Your task to perform on an android device: Open calendar and show me the fourth week of next month Image 0: 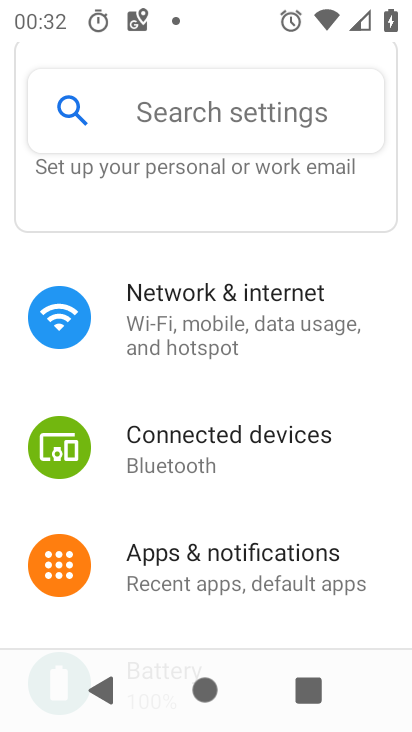
Step 0: press home button
Your task to perform on an android device: Open calendar and show me the fourth week of next month Image 1: 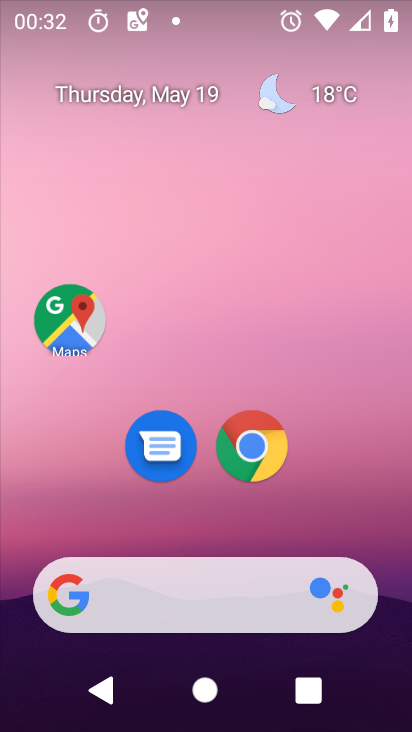
Step 1: drag from (212, 594) to (277, 193)
Your task to perform on an android device: Open calendar and show me the fourth week of next month Image 2: 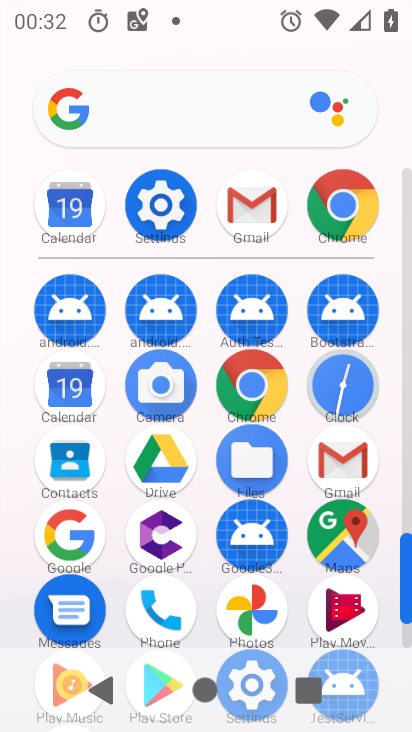
Step 2: click (71, 204)
Your task to perform on an android device: Open calendar and show me the fourth week of next month Image 3: 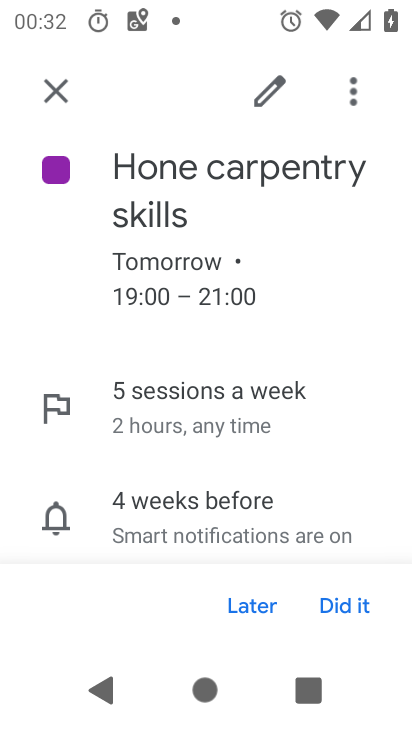
Step 3: click (51, 90)
Your task to perform on an android device: Open calendar and show me the fourth week of next month Image 4: 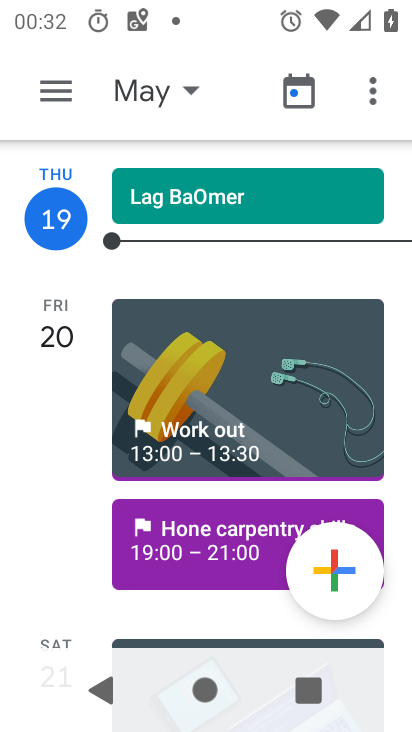
Step 4: click (135, 95)
Your task to perform on an android device: Open calendar and show me the fourth week of next month Image 5: 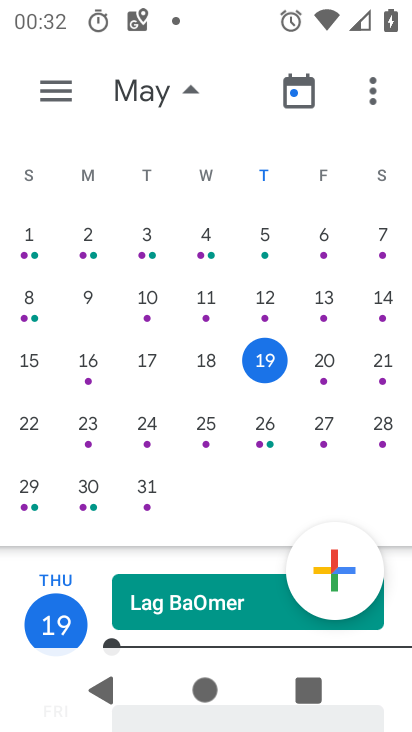
Step 5: drag from (359, 357) to (79, 142)
Your task to perform on an android device: Open calendar and show me the fourth week of next month Image 6: 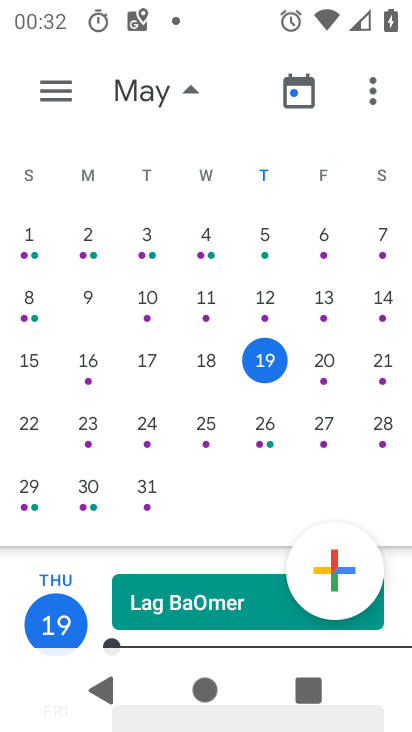
Step 6: drag from (391, 314) to (135, 264)
Your task to perform on an android device: Open calendar and show me the fourth week of next month Image 7: 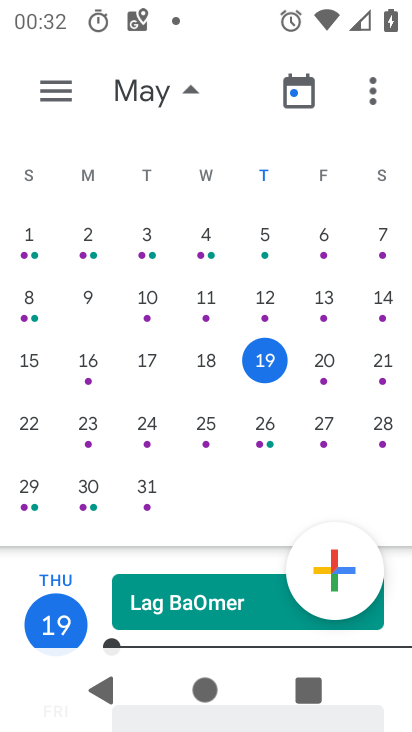
Step 7: drag from (323, 324) to (35, 281)
Your task to perform on an android device: Open calendar and show me the fourth week of next month Image 8: 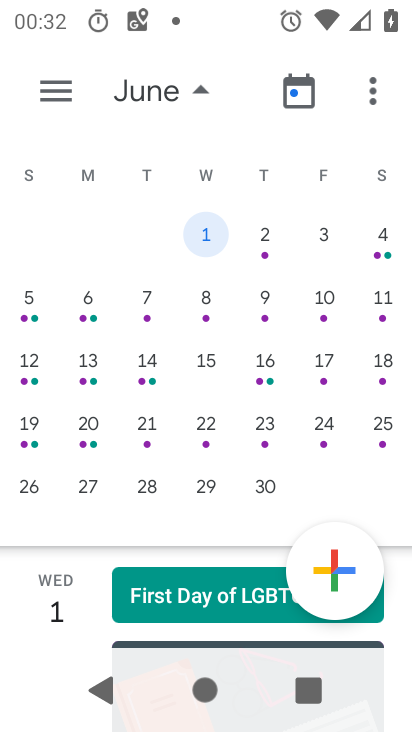
Step 8: click (25, 425)
Your task to perform on an android device: Open calendar and show me the fourth week of next month Image 9: 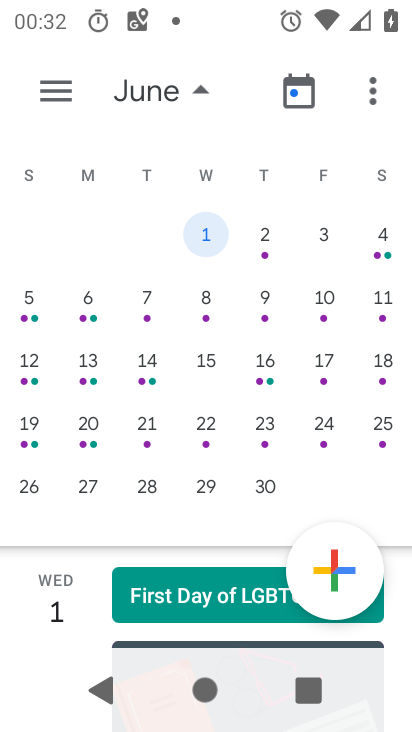
Step 9: click (36, 424)
Your task to perform on an android device: Open calendar and show me the fourth week of next month Image 10: 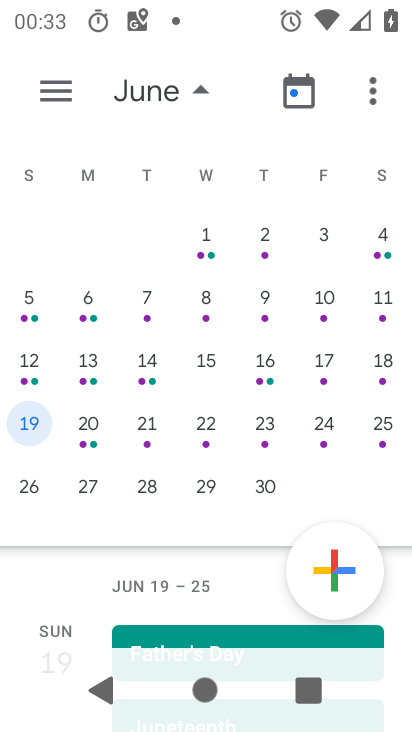
Step 10: click (64, 90)
Your task to perform on an android device: Open calendar and show me the fourth week of next month Image 11: 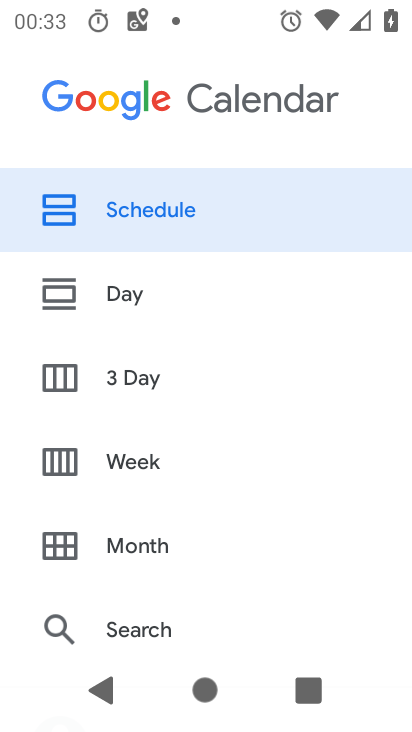
Step 11: click (115, 458)
Your task to perform on an android device: Open calendar and show me the fourth week of next month Image 12: 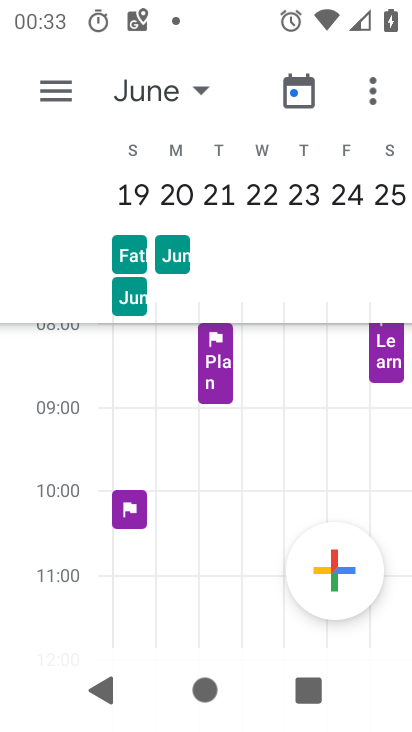
Step 12: task complete